Your task to perform on an android device: Open the Play Movies app and select the watchlist tab. Image 0: 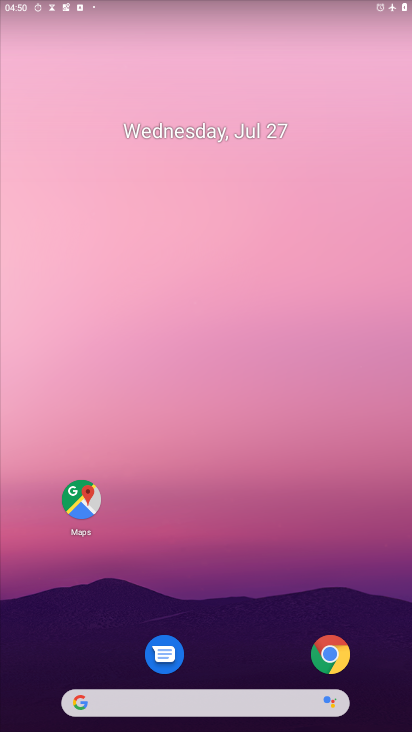
Step 0: drag from (274, 697) to (330, 25)
Your task to perform on an android device: Open the Play Movies app and select the watchlist tab. Image 1: 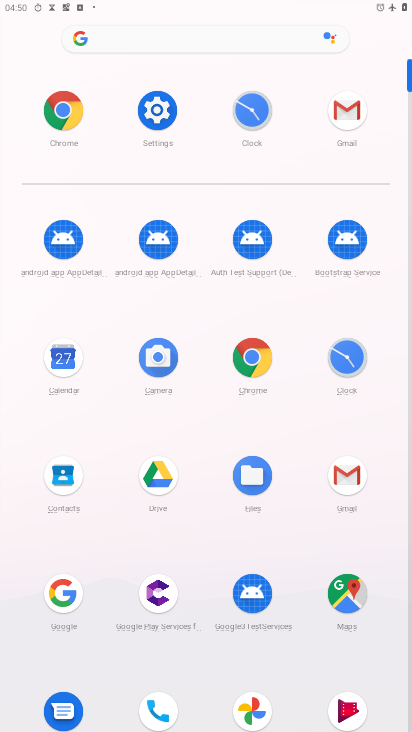
Step 1: drag from (257, 660) to (291, 336)
Your task to perform on an android device: Open the Play Movies app and select the watchlist tab. Image 2: 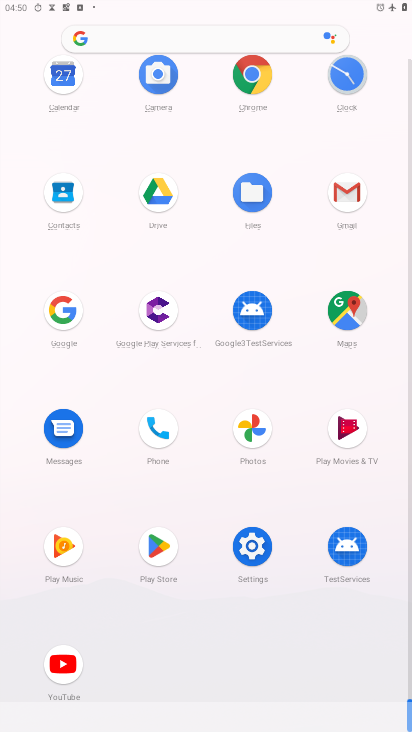
Step 2: click (345, 437)
Your task to perform on an android device: Open the Play Movies app and select the watchlist tab. Image 3: 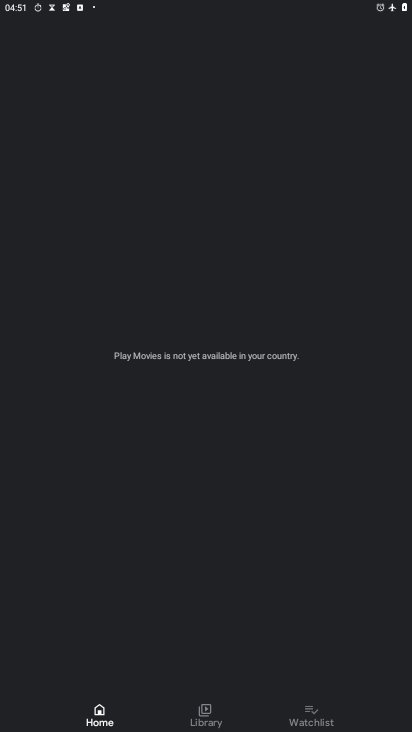
Step 3: click (305, 715)
Your task to perform on an android device: Open the Play Movies app and select the watchlist tab. Image 4: 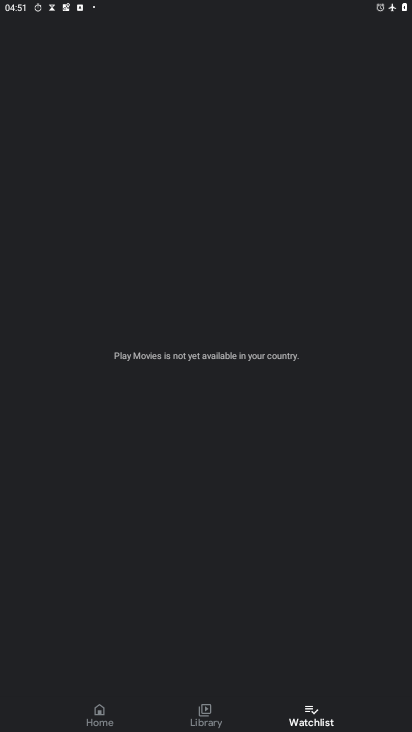
Step 4: task complete